Your task to perform on an android device: Go to internet settings Image 0: 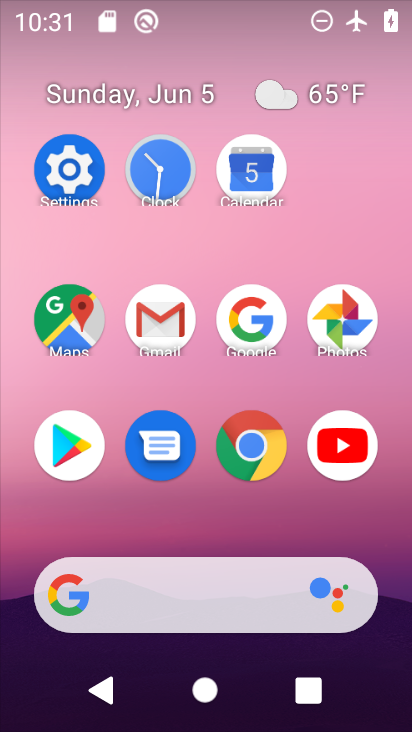
Step 0: click (94, 182)
Your task to perform on an android device: Go to internet settings Image 1: 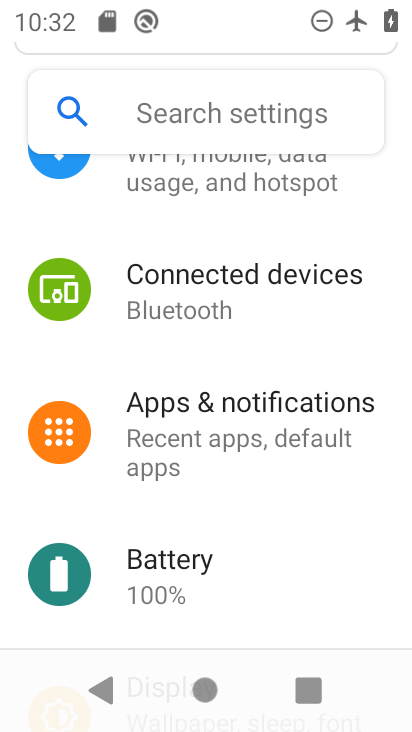
Step 1: drag from (311, 249) to (255, 458)
Your task to perform on an android device: Go to internet settings Image 2: 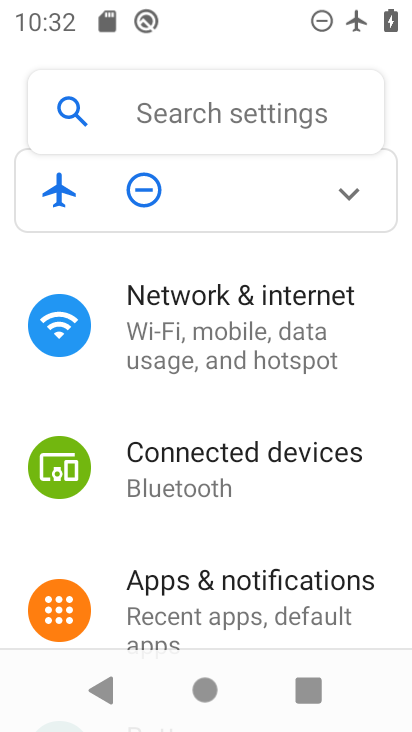
Step 2: click (248, 315)
Your task to perform on an android device: Go to internet settings Image 3: 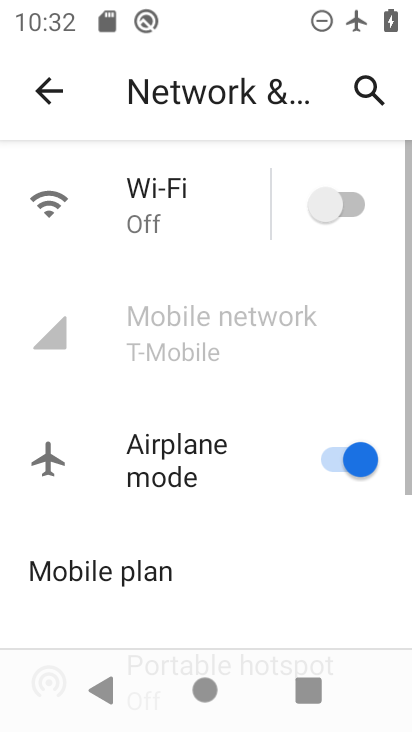
Step 3: task complete